Your task to perform on an android device: open chrome and create a bookmark for the current page Image 0: 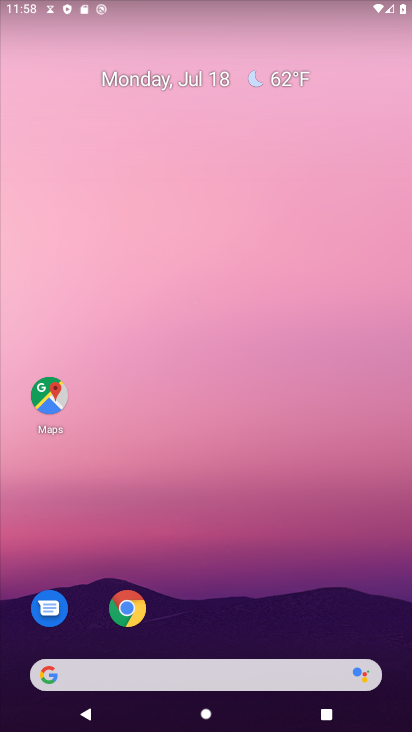
Step 0: drag from (270, 626) to (216, 7)
Your task to perform on an android device: open chrome and create a bookmark for the current page Image 1: 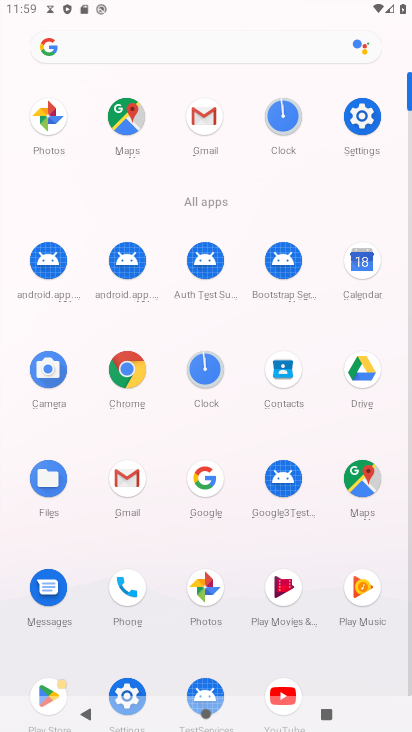
Step 1: click (120, 377)
Your task to perform on an android device: open chrome and create a bookmark for the current page Image 2: 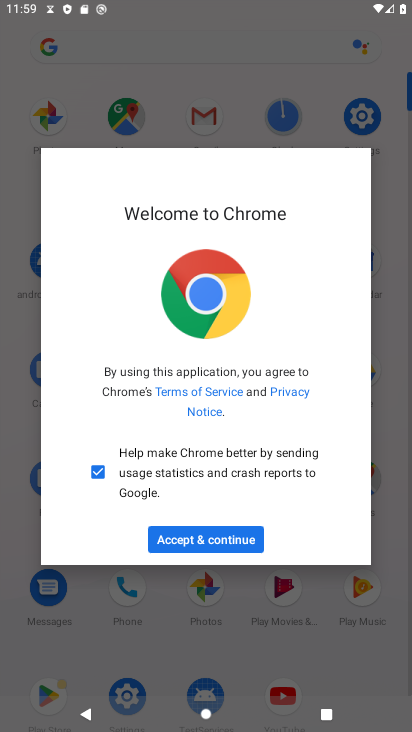
Step 2: click (215, 535)
Your task to perform on an android device: open chrome and create a bookmark for the current page Image 3: 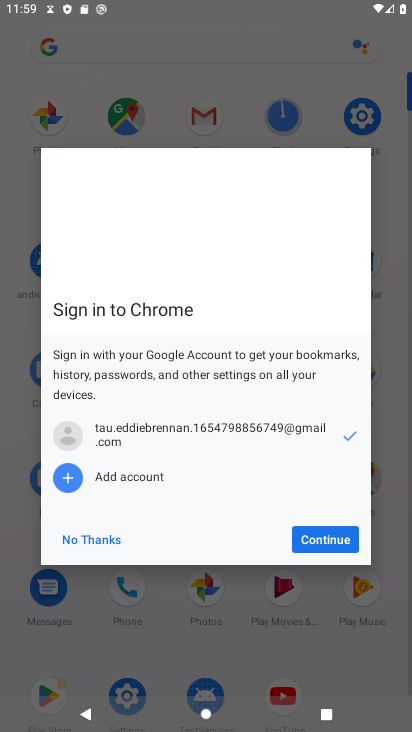
Step 3: click (329, 543)
Your task to perform on an android device: open chrome and create a bookmark for the current page Image 4: 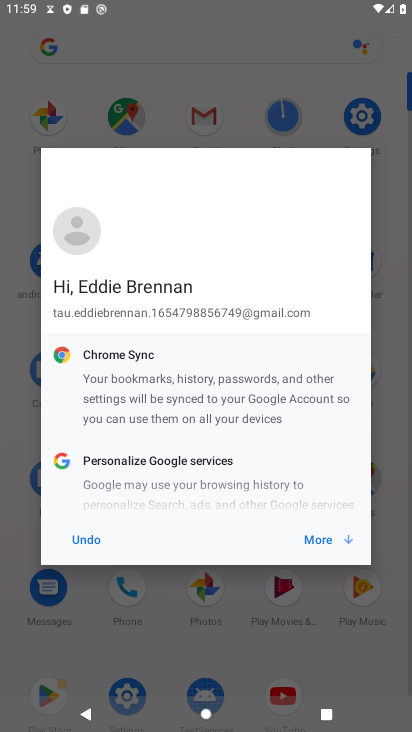
Step 4: click (329, 543)
Your task to perform on an android device: open chrome and create a bookmark for the current page Image 5: 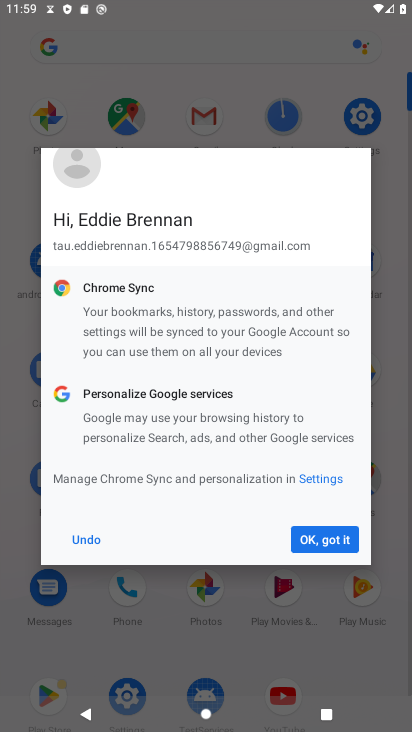
Step 5: click (329, 543)
Your task to perform on an android device: open chrome and create a bookmark for the current page Image 6: 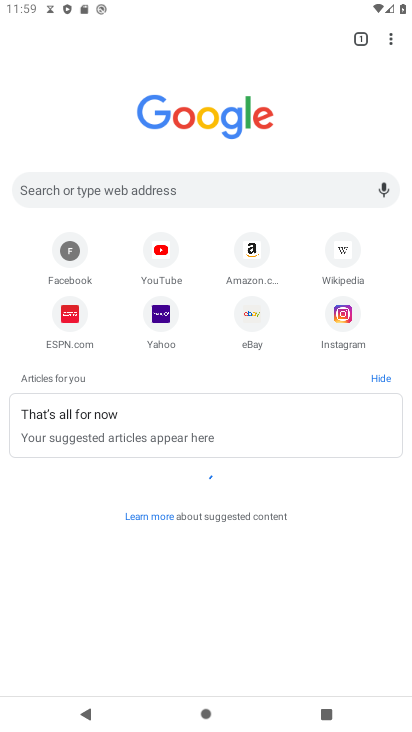
Step 6: click (396, 36)
Your task to perform on an android device: open chrome and create a bookmark for the current page Image 7: 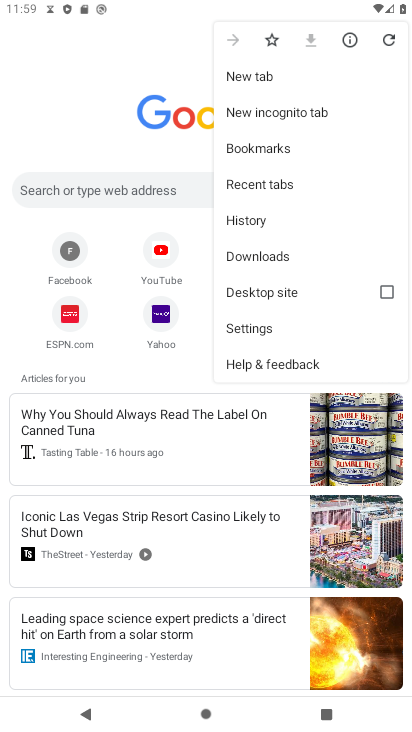
Step 7: click (273, 42)
Your task to perform on an android device: open chrome and create a bookmark for the current page Image 8: 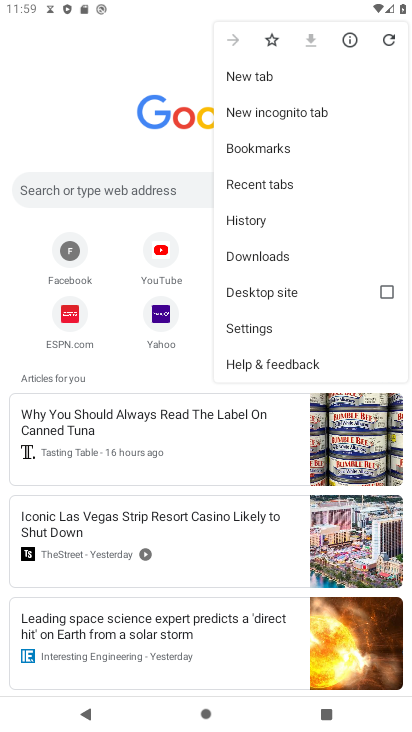
Step 8: task complete